Your task to perform on an android device: What is the recent news? Image 0: 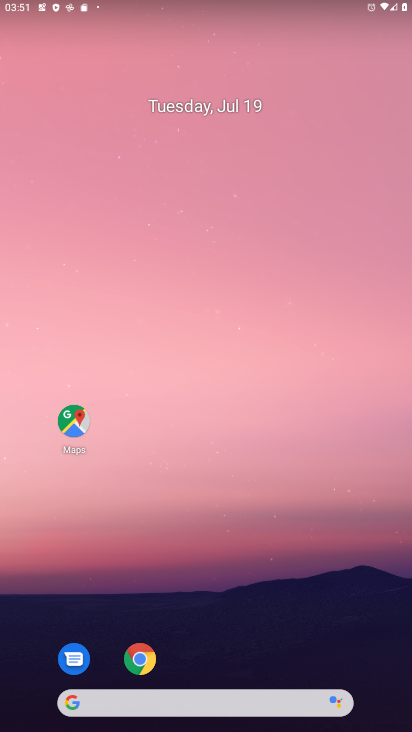
Step 0: press home button
Your task to perform on an android device: What is the recent news? Image 1: 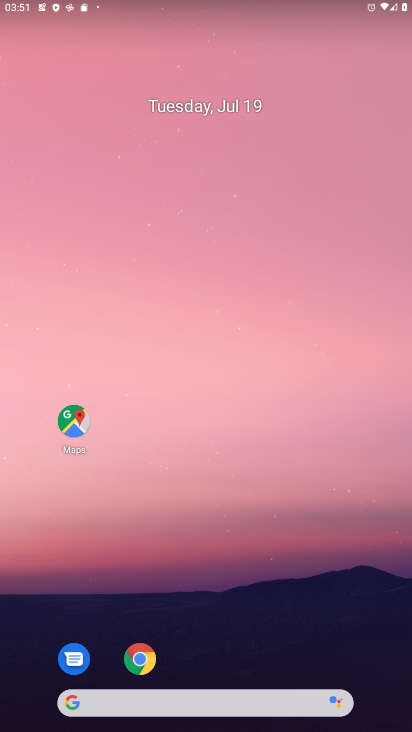
Step 1: click (136, 650)
Your task to perform on an android device: What is the recent news? Image 2: 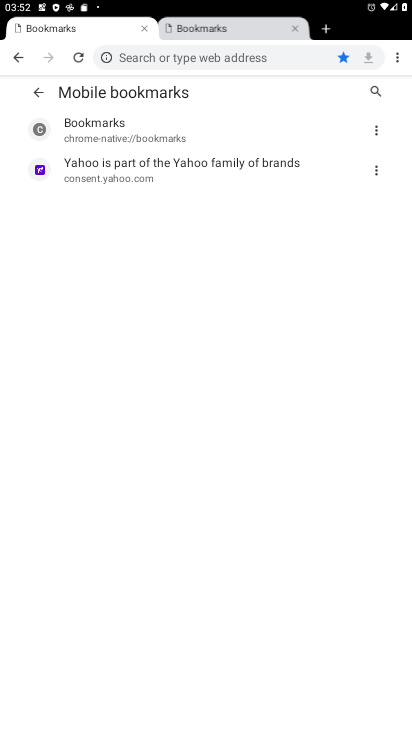
Step 2: click (217, 49)
Your task to perform on an android device: What is the recent news? Image 3: 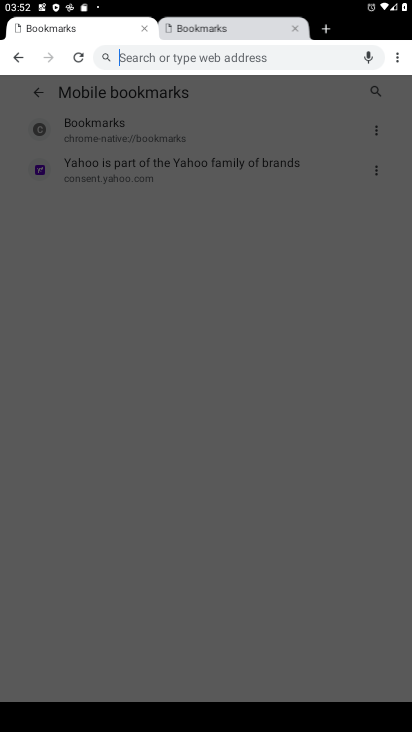
Step 3: type "What is the recent news?"
Your task to perform on an android device: What is the recent news? Image 4: 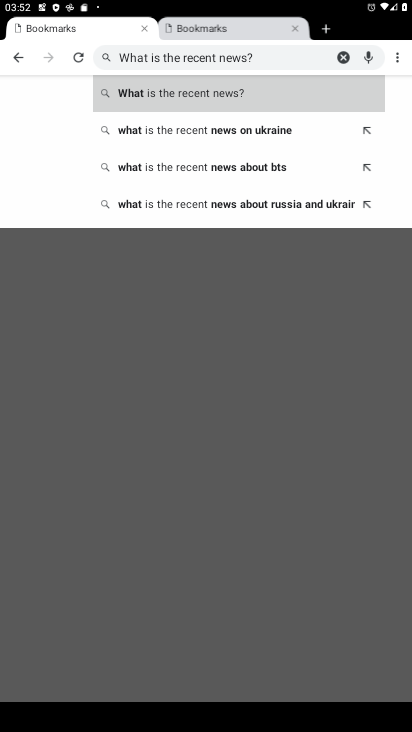
Step 4: click (197, 90)
Your task to perform on an android device: What is the recent news? Image 5: 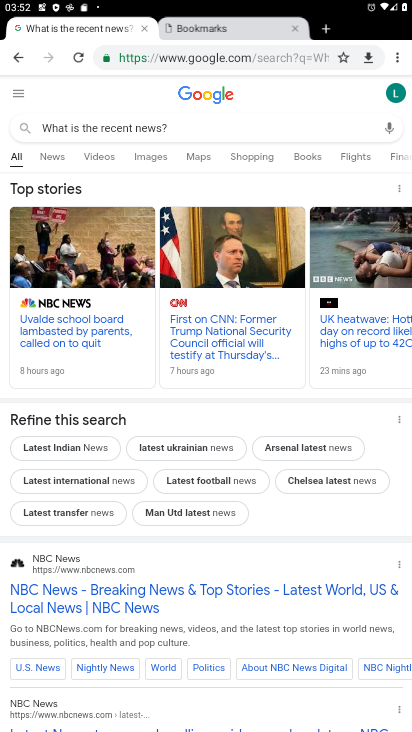
Step 5: task complete